Your task to perform on an android device: turn on airplane mode Image 0: 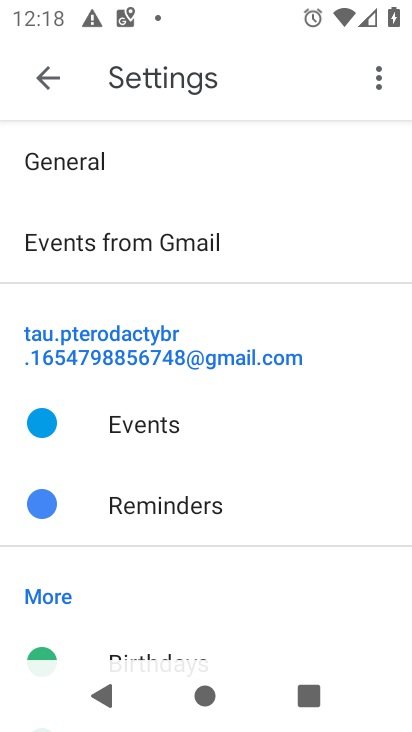
Step 0: drag from (354, 11) to (257, 638)
Your task to perform on an android device: turn on airplane mode Image 1: 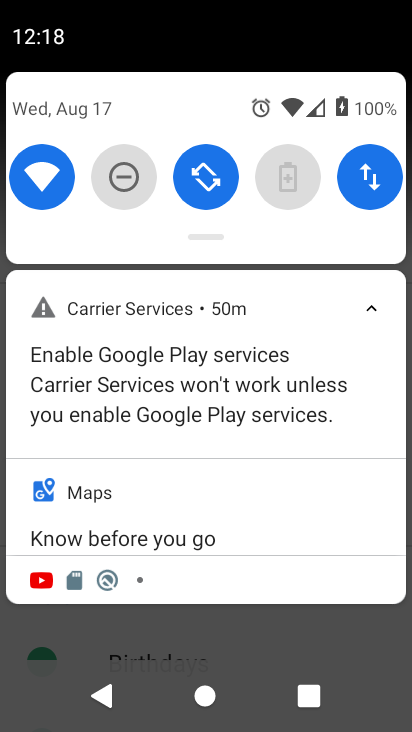
Step 1: drag from (205, 223) to (232, 694)
Your task to perform on an android device: turn on airplane mode Image 2: 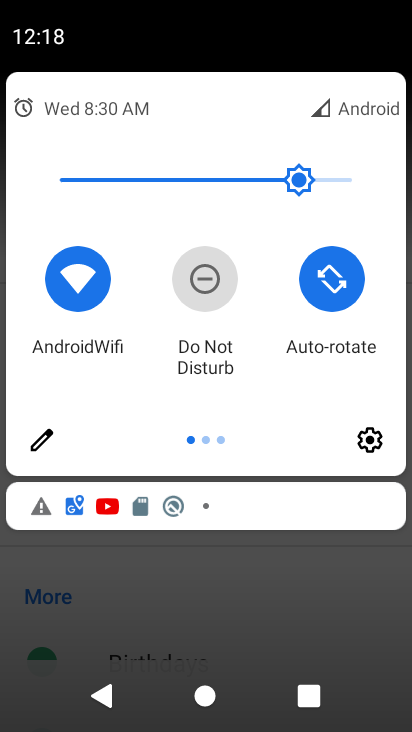
Step 2: drag from (355, 289) to (0, 285)
Your task to perform on an android device: turn on airplane mode Image 3: 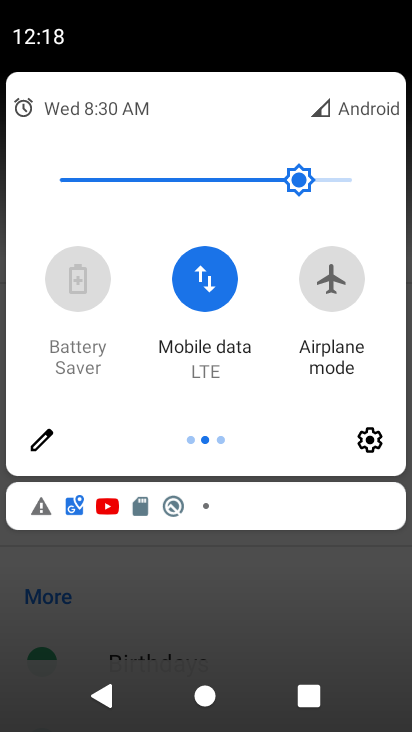
Step 3: click (334, 284)
Your task to perform on an android device: turn on airplane mode Image 4: 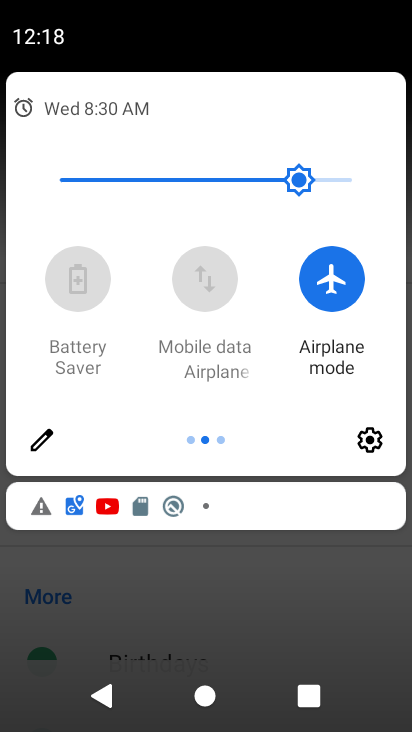
Step 4: task complete